Your task to perform on an android device: Do I have any events this weekend? Image 0: 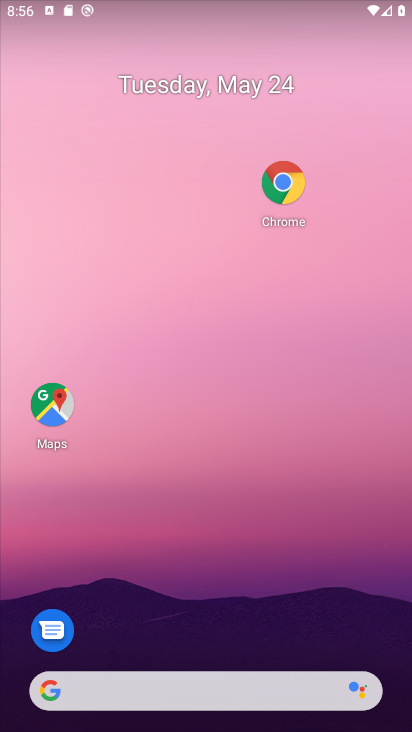
Step 0: press home button
Your task to perform on an android device: Do I have any events this weekend? Image 1: 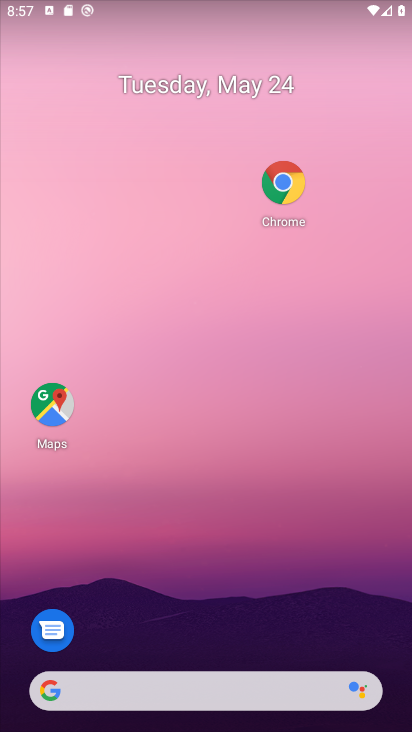
Step 1: drag from (210, 713) to (222, 119)
Your task to perform on an android device: Do I have any events this weekend? Image 2: 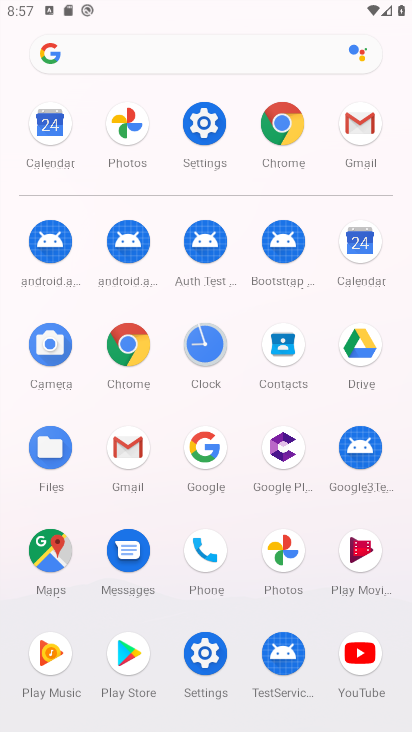
Step 2: click (364, 245)
Your task to perform on an android device: Do I have any events this weekend? Image 3: 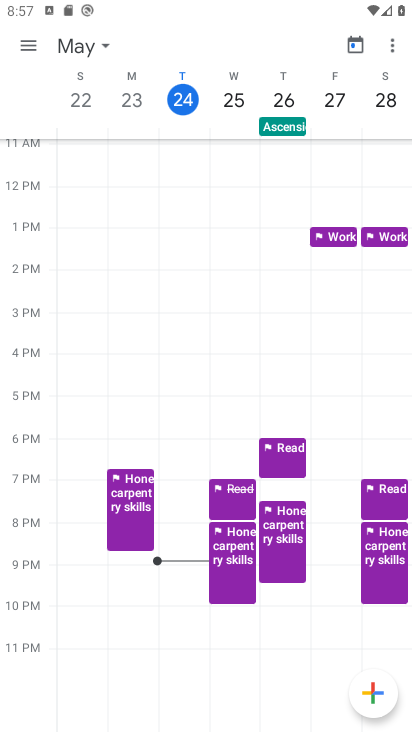
Step 3: click (28, 45)
Your task to perform on an android device: Do I have any events this weekend? Image 4: 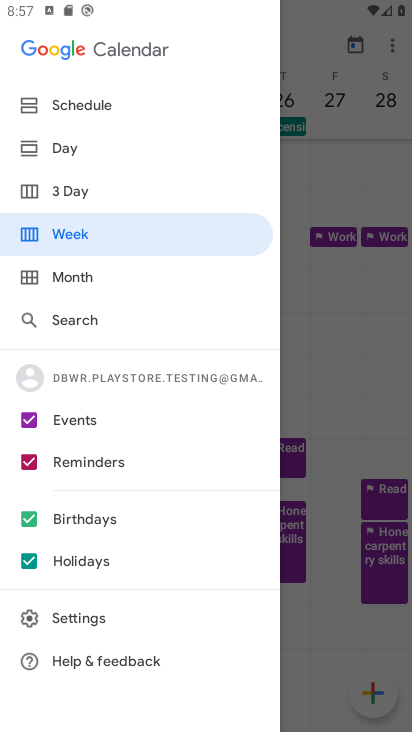
Step 4: click (73, 230)
Your task to perform on an android device: Do I have any events this weekend? Image 5: 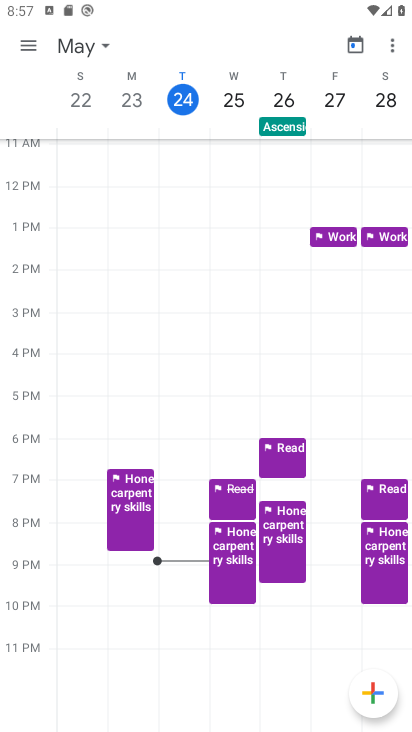
Step 5: task complete